Your task to perform on an android device: toggle notification dots Image 0: 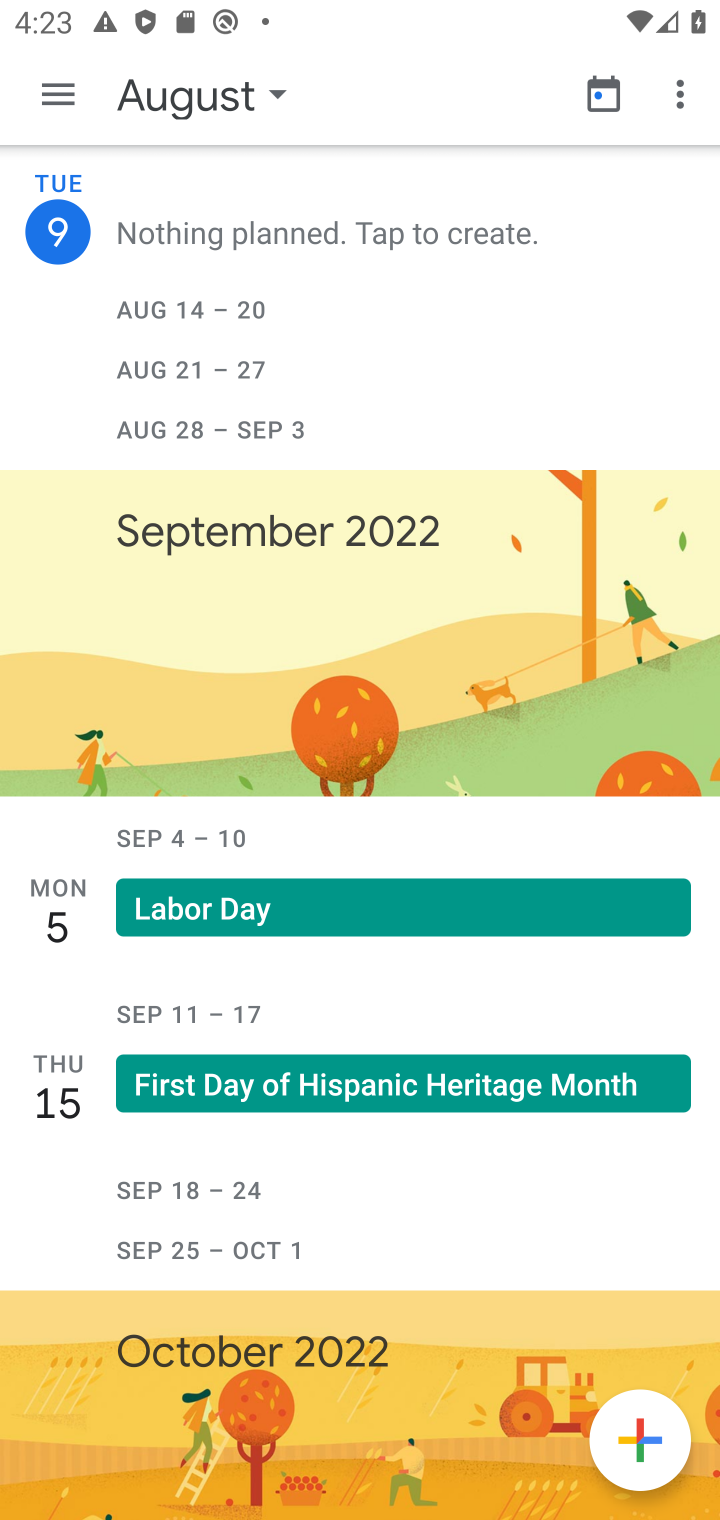
Step 0: click (440, 366)
Your task to perform on an android device: toggle notification dots Image 1: 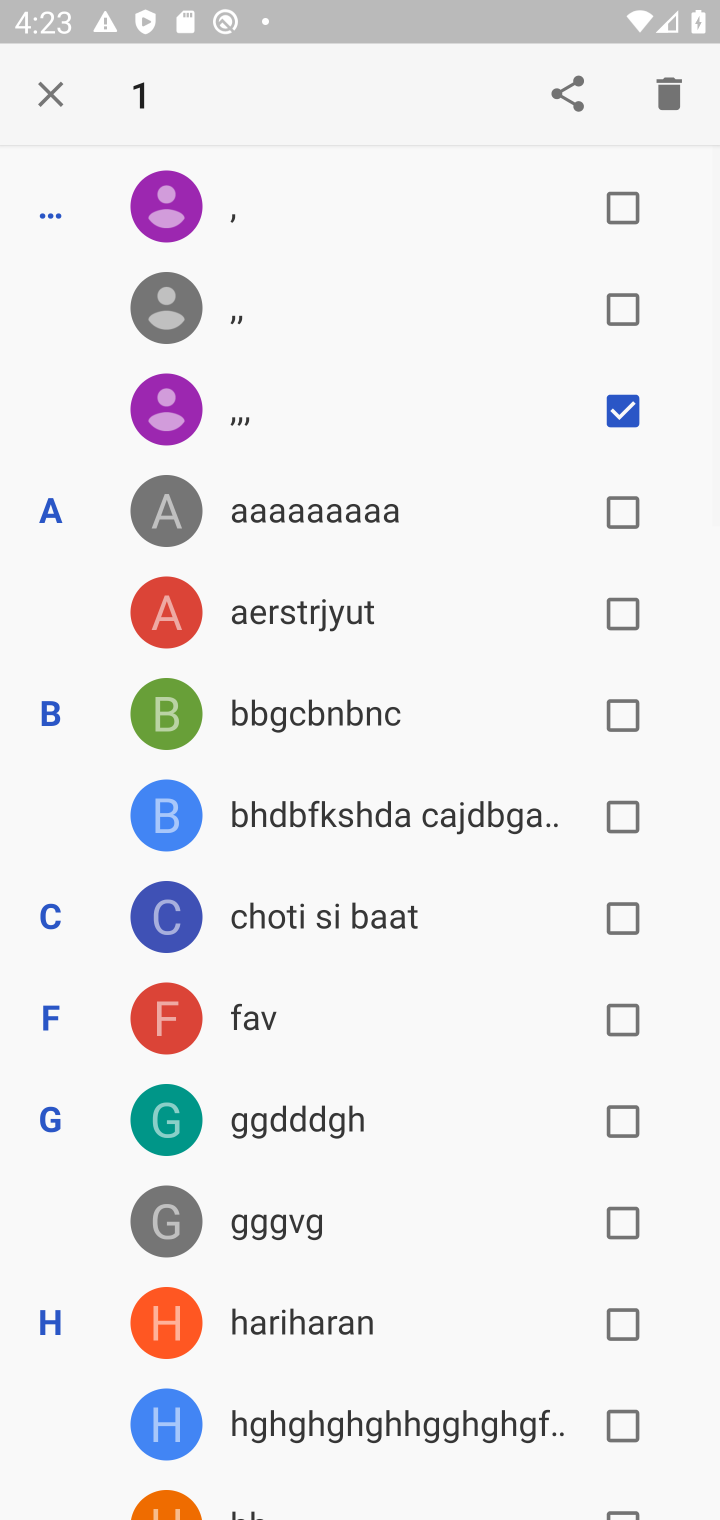
Step 1: task complete